Your task to perform on an android device: Open Google Maps Image 0: 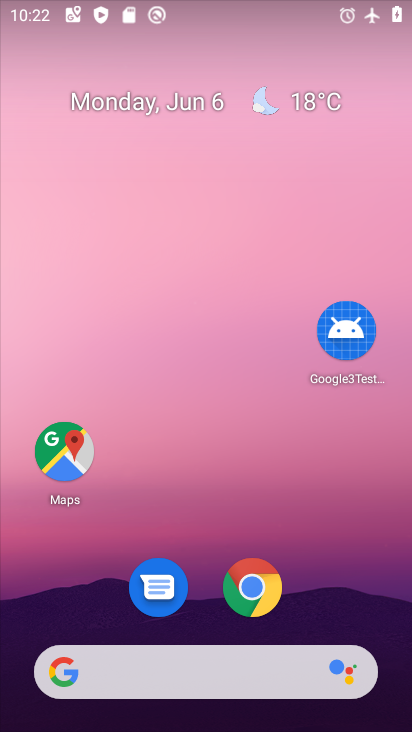
Step 0: click (73, 444)
Your task to perform on an android device: Open Google Maps Image 1: 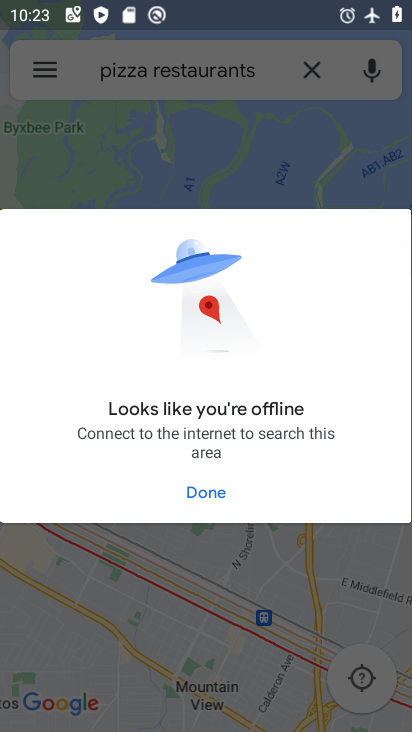
Step 1: click (190, 485)
Your task to perform on an android device: Open Google Maps Image 2: 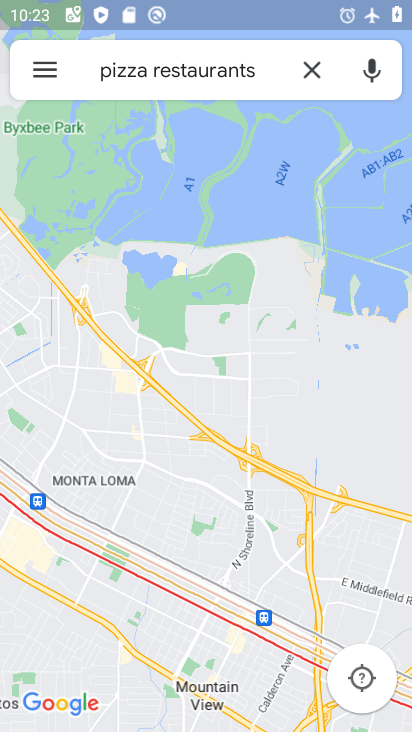
Step 2: task complete